Your task to perform on an android device: open sync settings in chrome Image 0: 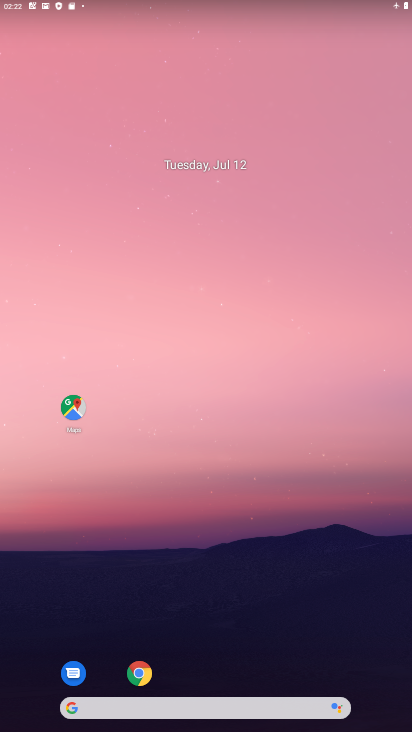
Step 0: press home button
Your task to perform on an android device: open sync settings in chrome Image 1: 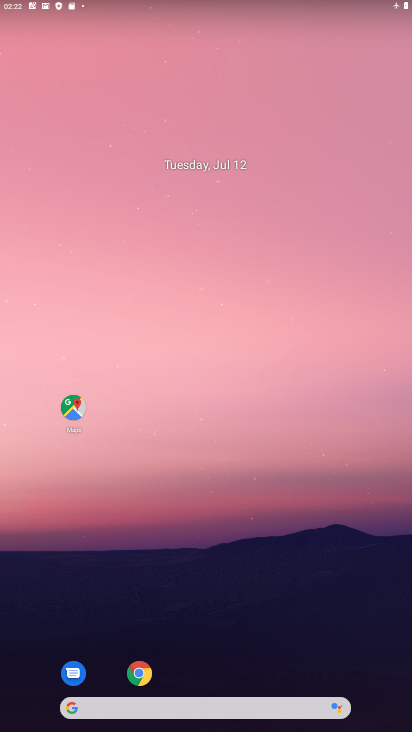
Step 1: drag from (258, 469) to (334, 19)
Your task to perform on an android device: open sync settings in chrome Image 2: 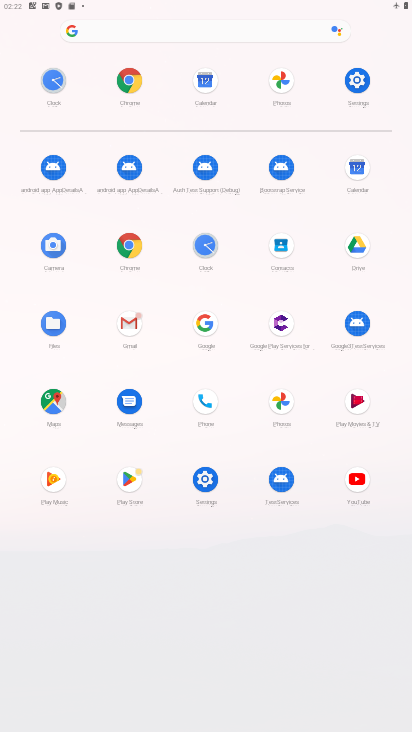
Step 2: click (135, 245)
Your task to perform on an android device: open sync settings in chrome Image 3: 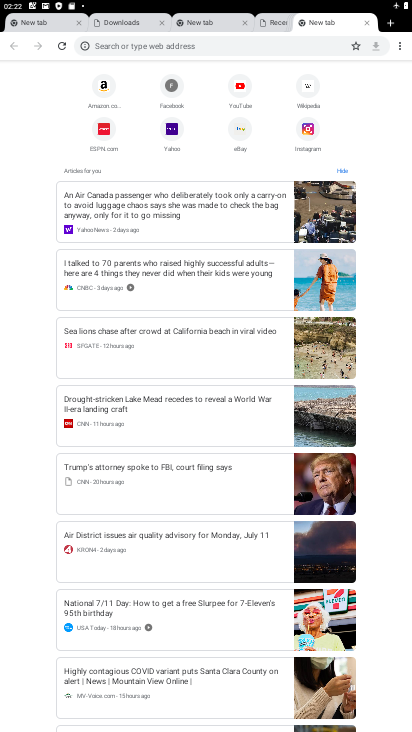
Step 3: click (401, 40)
Your task to perform on an android device: open sync settings in chrome Image 4: 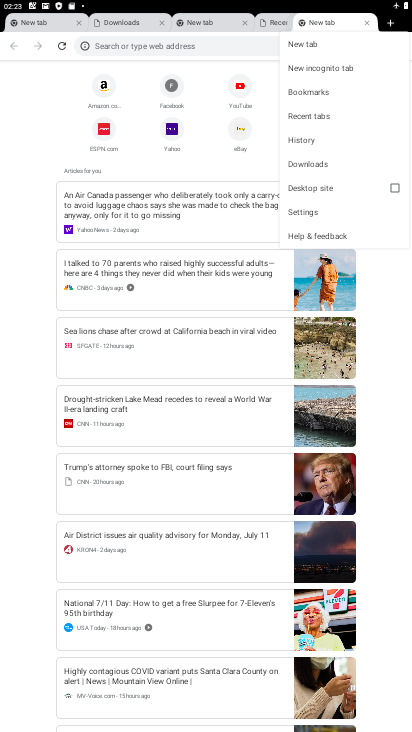
Step 4: click (298, 203)
Your task to perform on an android device: open sync settings in chrome Image 5: 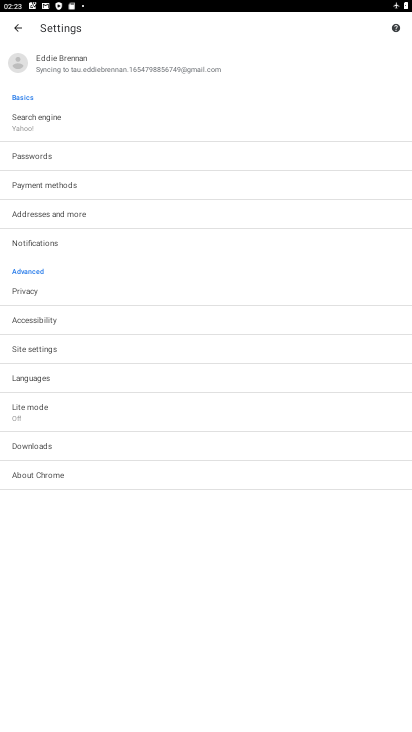
Step 5: click (17, 342)
Your task to perform on an android device: open sync settings in chrome Image 6: 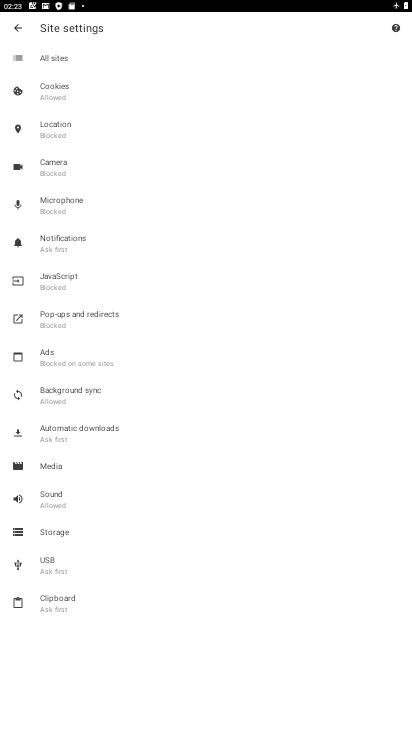
Step 6: click (112, 388)
Your task to perform on an android device: open sync settings in chrome Image 7: 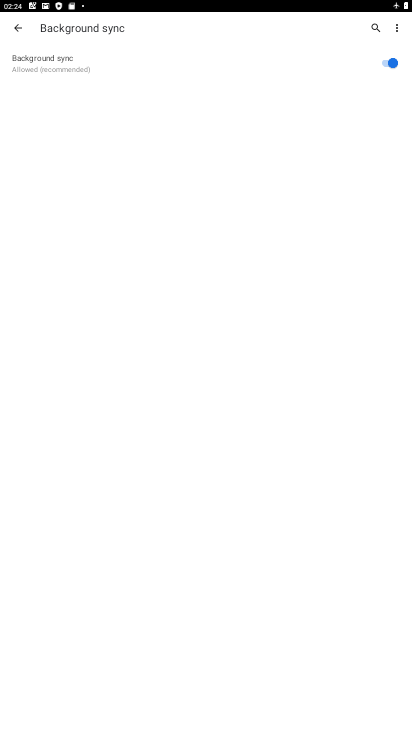
Step 7: task complete